Your task to perform on an android device: see sites visited before in the chrome app Image 0: 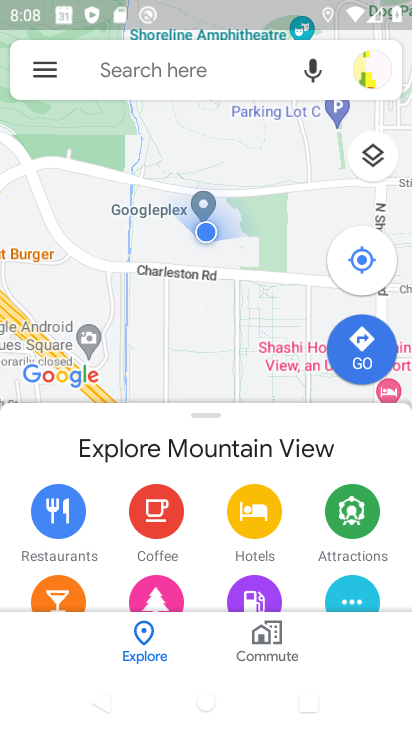
Step 0: press home button
Your task to perform on an android device: see sites visited before in the chrome app Image 1: 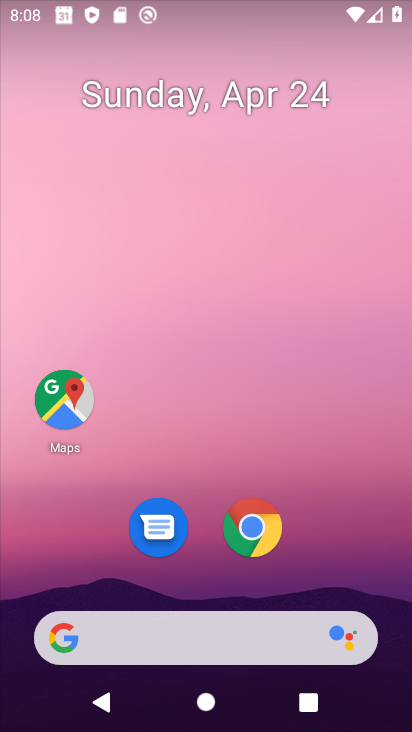
Step 1: click (246, 528)
Your task to perform on an android device: see sites visited before in the chrome app Image 2: 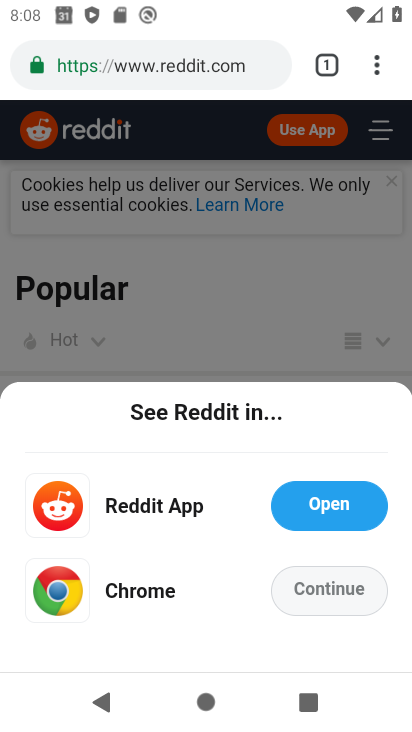
Step 2: click (375, 70)
Your task to perform on an android device: see sites visited before in the chrome app Image 3: 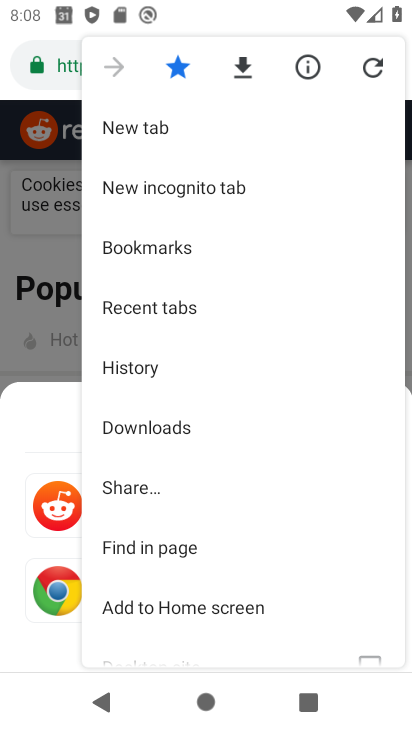
Step 3: click (163, 372)
Your task to perform on an android device: see sites visited before in the chrome app Image 4: 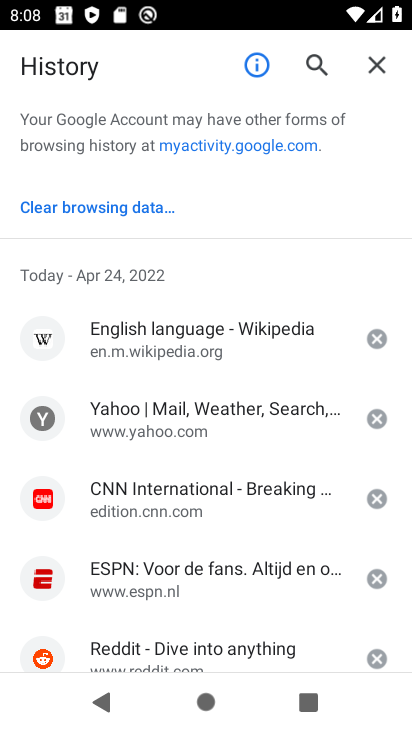
Step 4: task complete